Your task to perform on an android device: What's US dollar exchange rate against the Indian Rupee? Image 0: 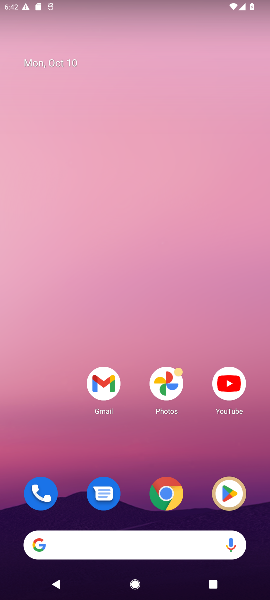
Step 0: click (124, 544)
Your task to perform on an android device: What's US dollar exchange rate against the Indian Rupee? Image 1: 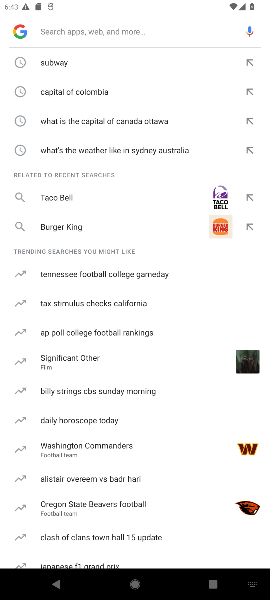
Step 1: type "What's US dollar exchange rate against the Indian Rupee?"
Your task to perform on an android device: What's US dollar exchange rate against the Indian Rupee? Image 2: 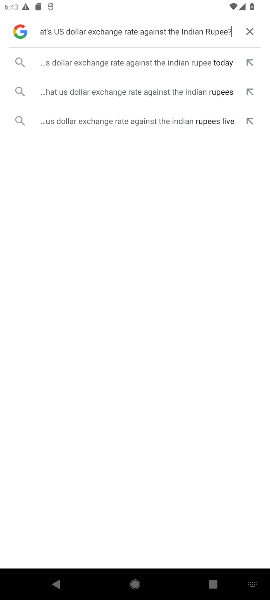
Step 2: click (159, 97)
Your task to perform on an android device: What's US dollar exchange rate against the Indian Rupee? Image 3: 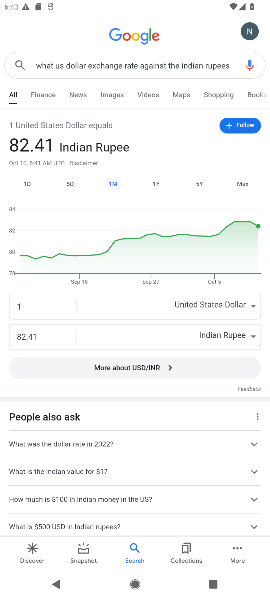
Step 3: task complete